Your task to perform on an android device: check data usage Image 0: 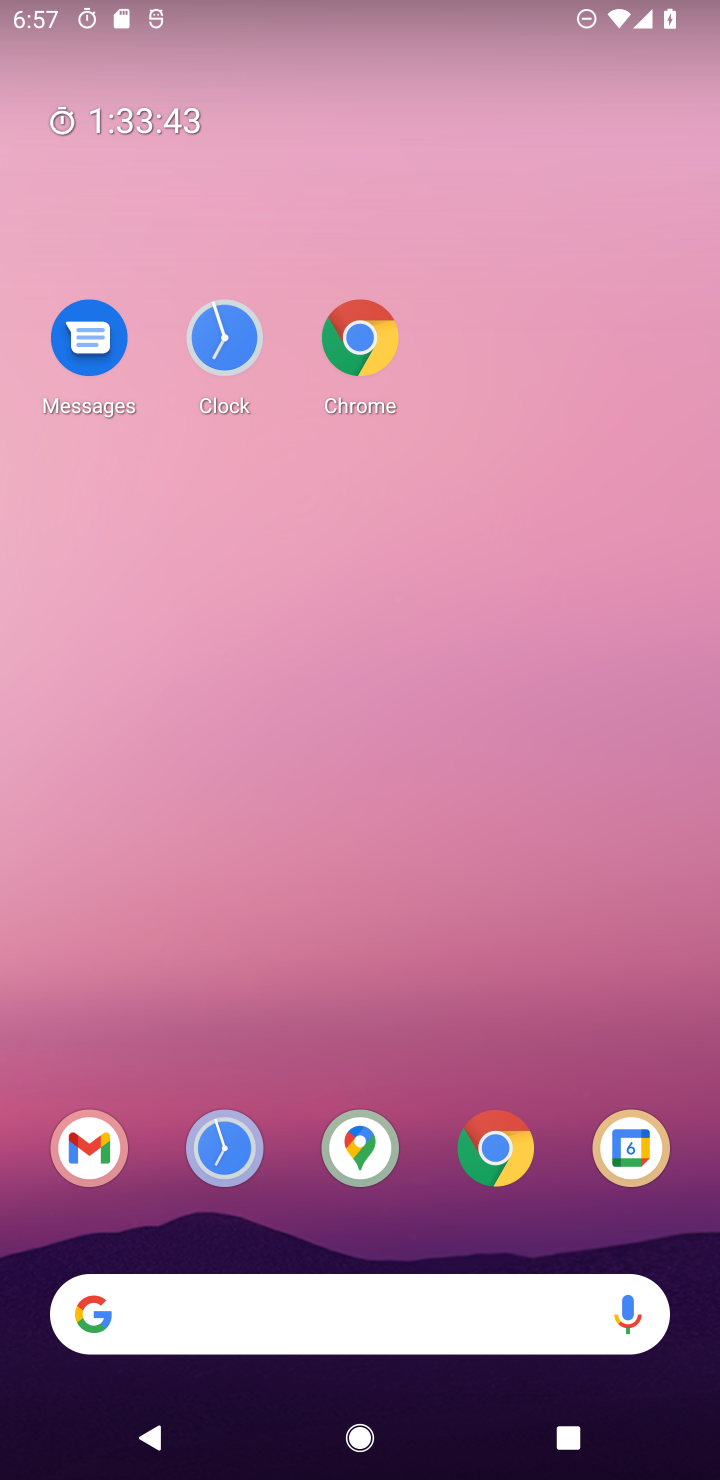
Step 0: drag from (407, 1111) to (497, 410)
Your task to perform on an android device: check data usage Image 1: 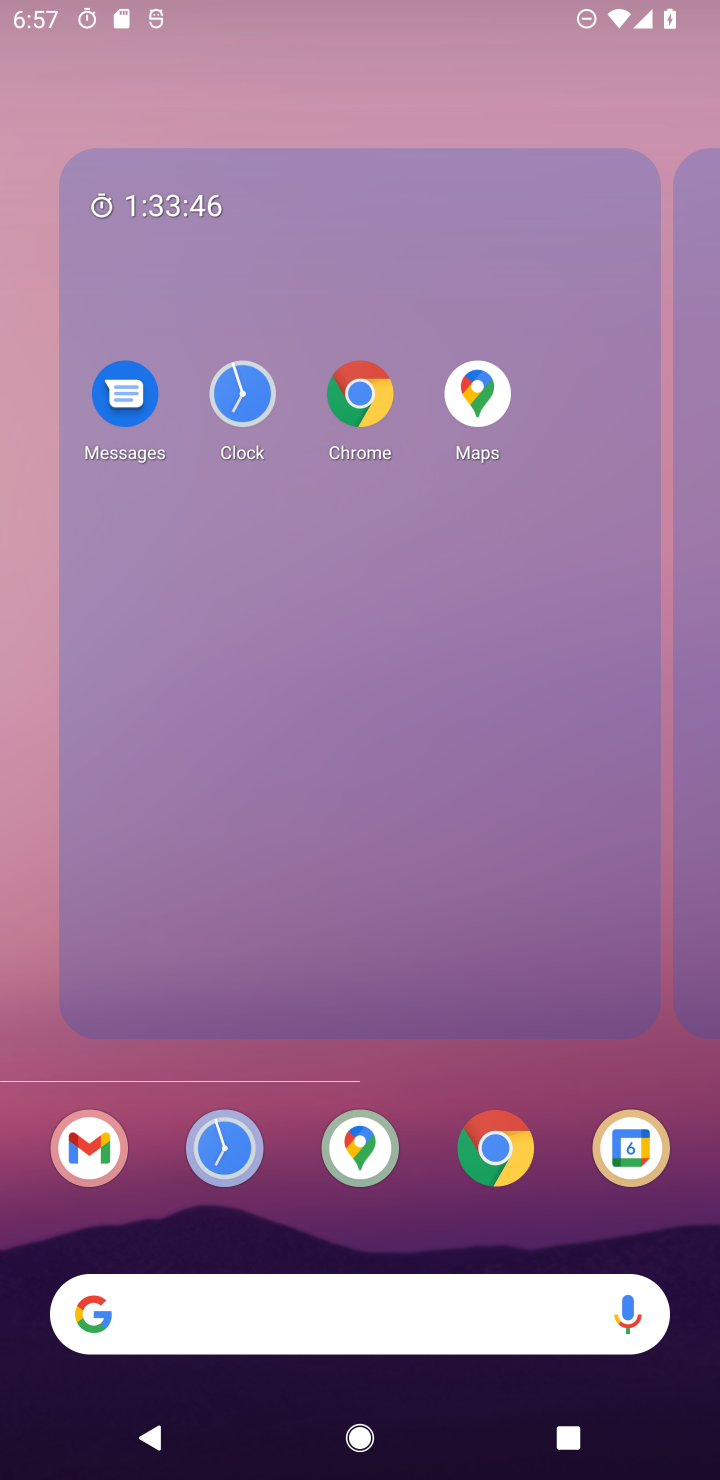
Step 1: drag from (385, 1137) to (429, 427)
Your task to perform on an android device: check data usage Image 2: 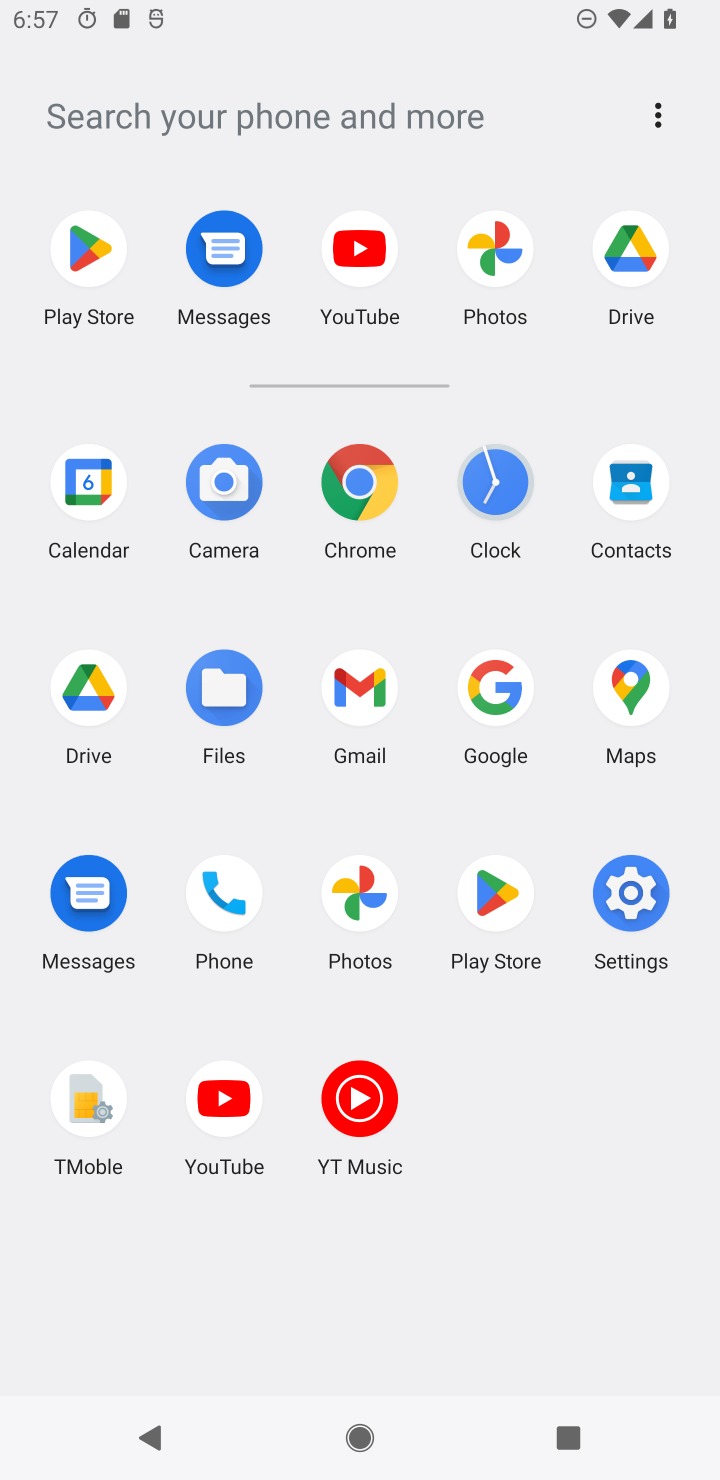
Step 2: click (615, 884)
Your task to perform on an android device: check data usage Image 3: 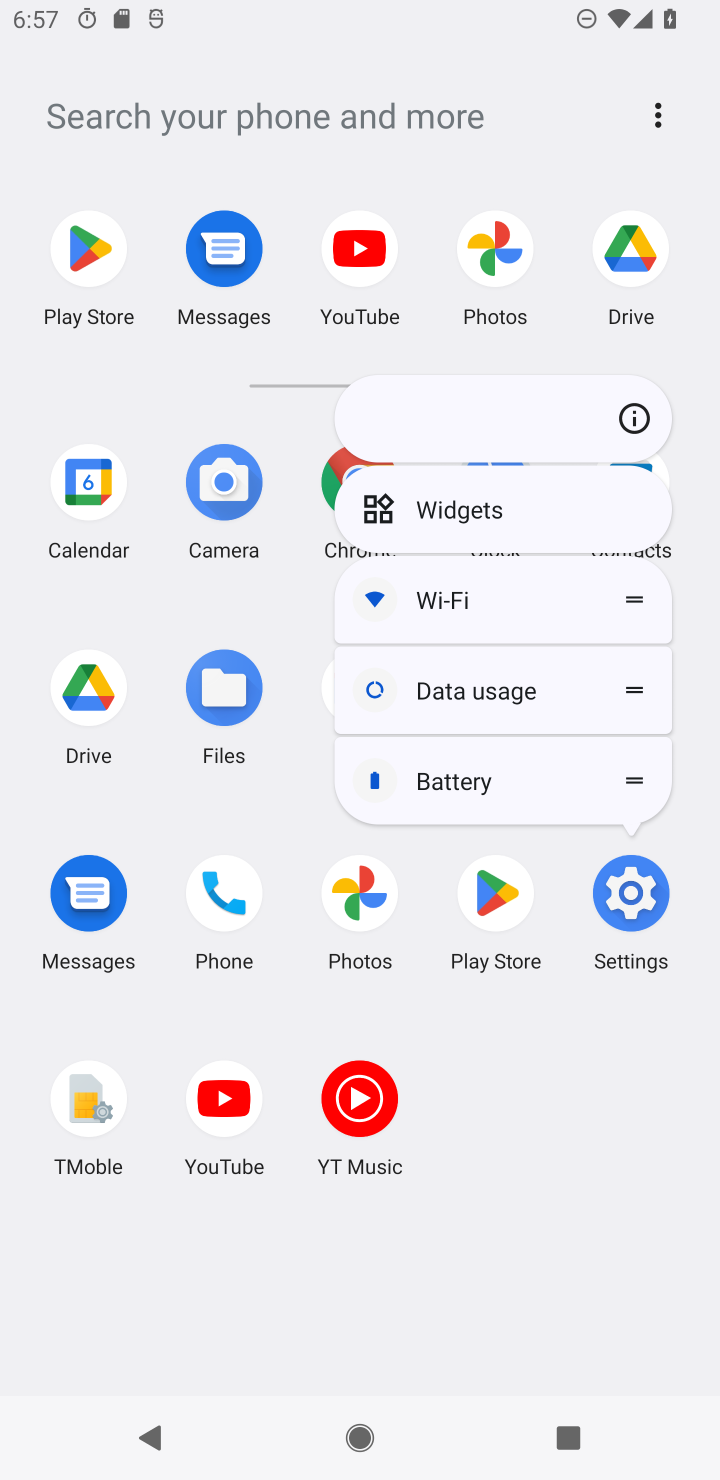
Step 3: click (633, 414)
Your task to perform on an android device: check data usage Image 4: 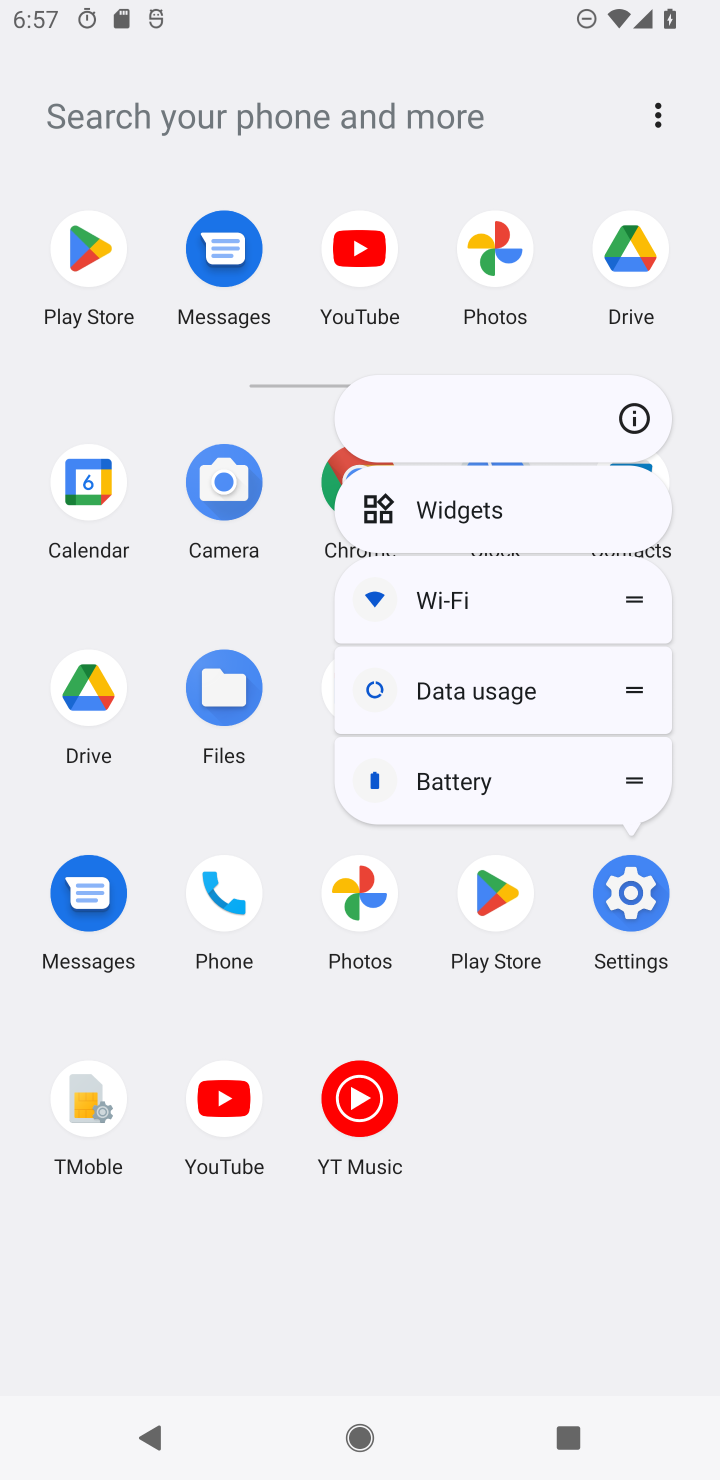
Step 4: click (619, 424)
Your task to perform on an android device: check data usage Image 5: 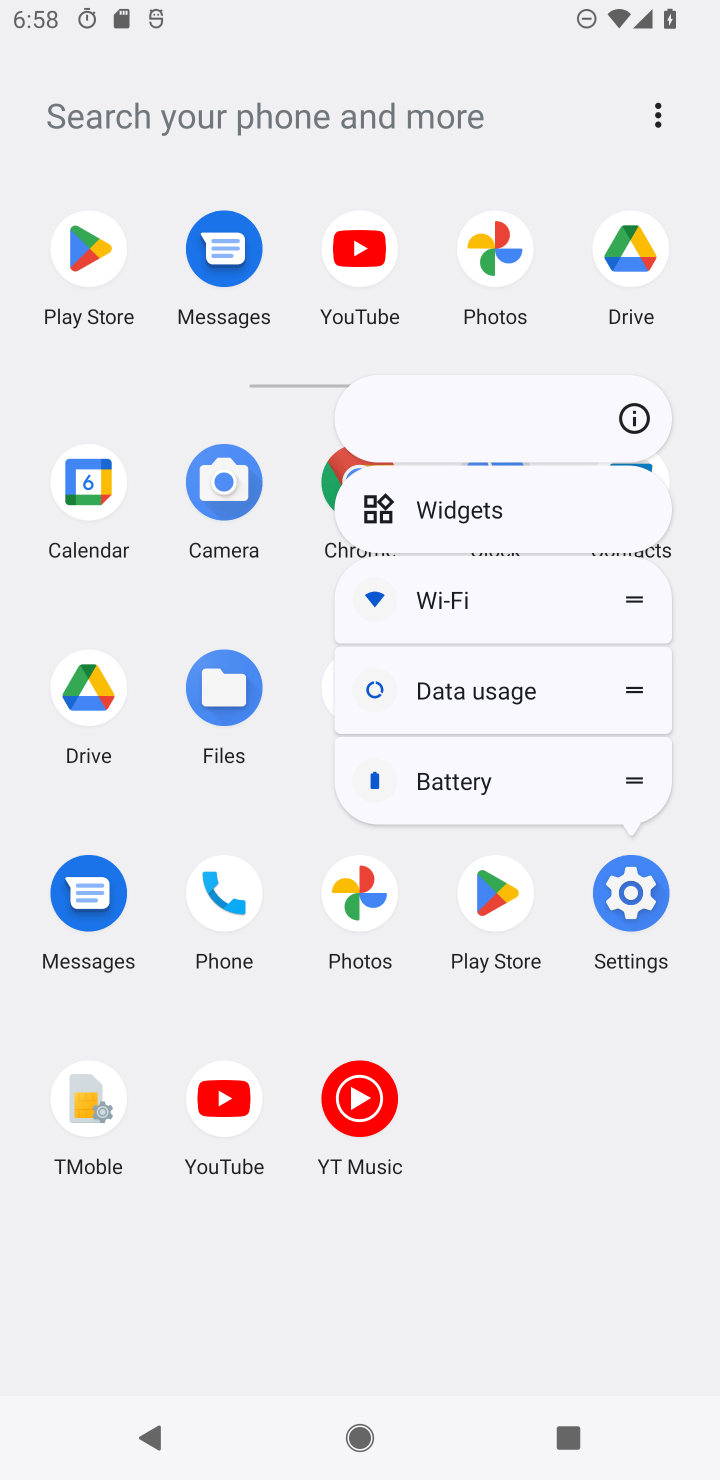
Step 5: click (634, 413)
Your task to perform on an android device: check data usage Image 6: 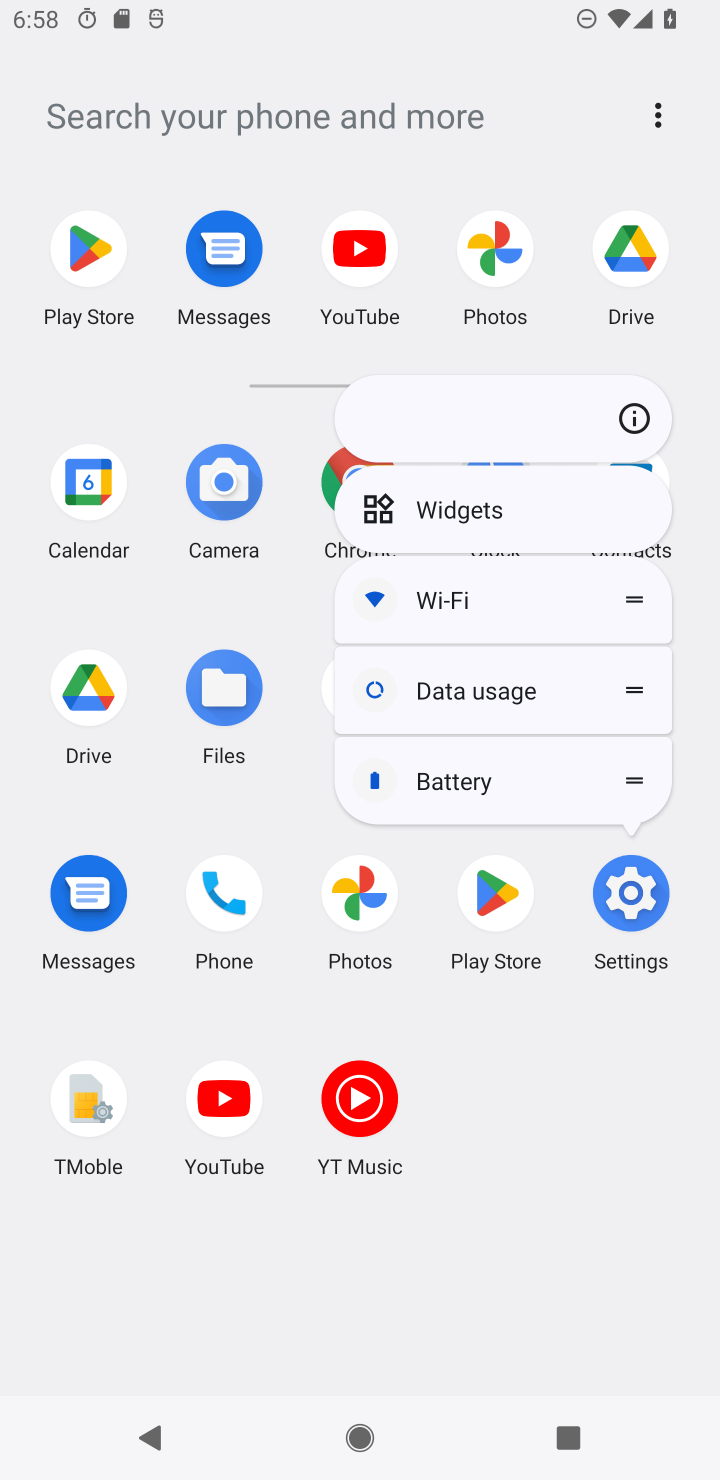
Step 6: click (635, 412)
Your task to perform on an android device: check data usage Image 7: 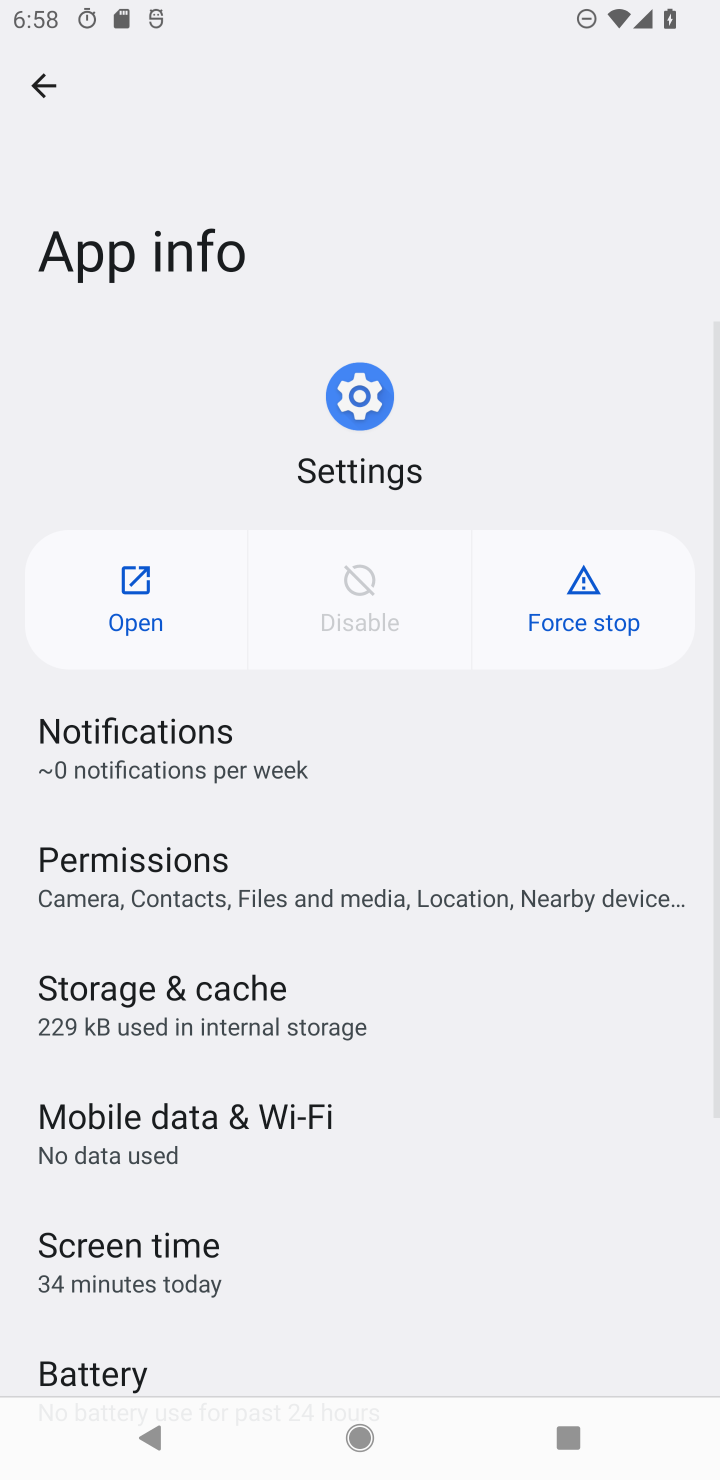
Step 7: click (170, 642)
Your task to perform on an android device: check data usage Image 8: 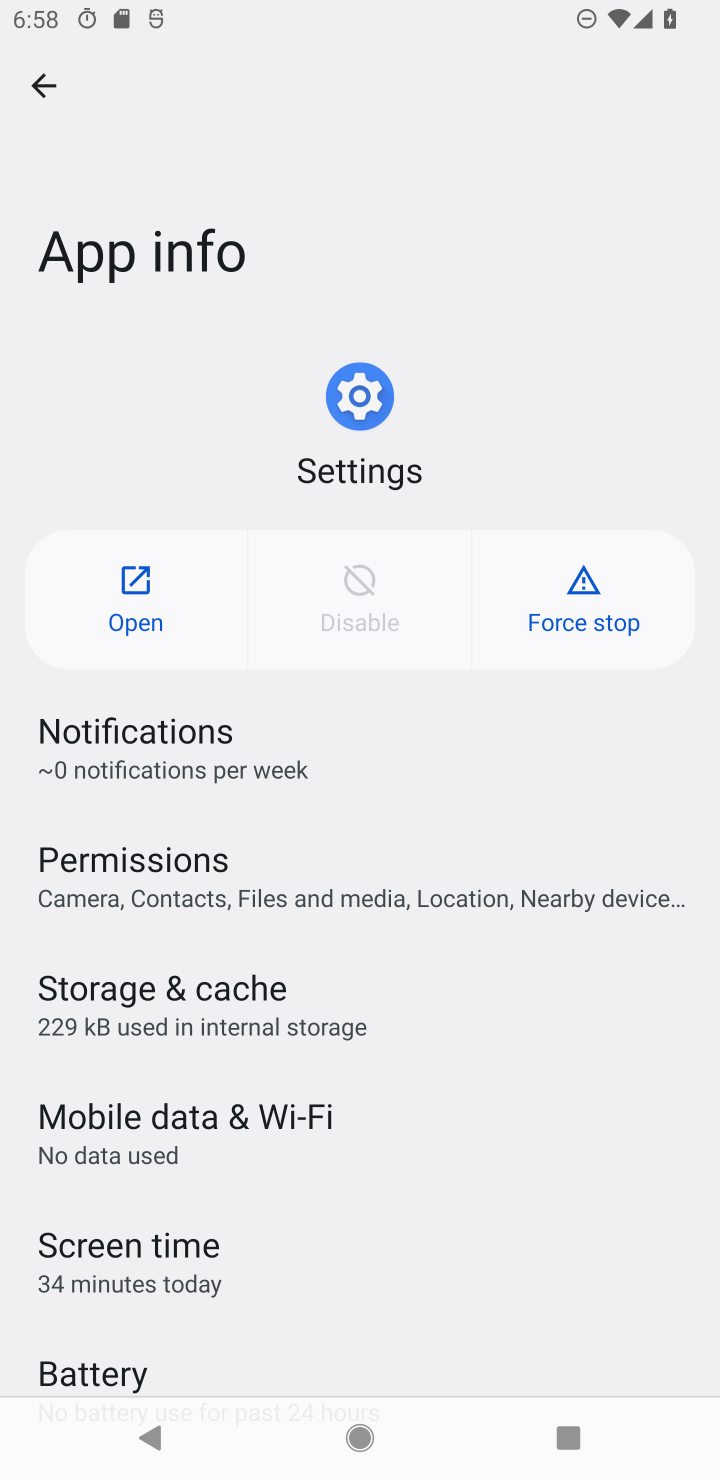
Step 8: click (148, 632)
Your task to perform on an android device: check data usage Image 9: 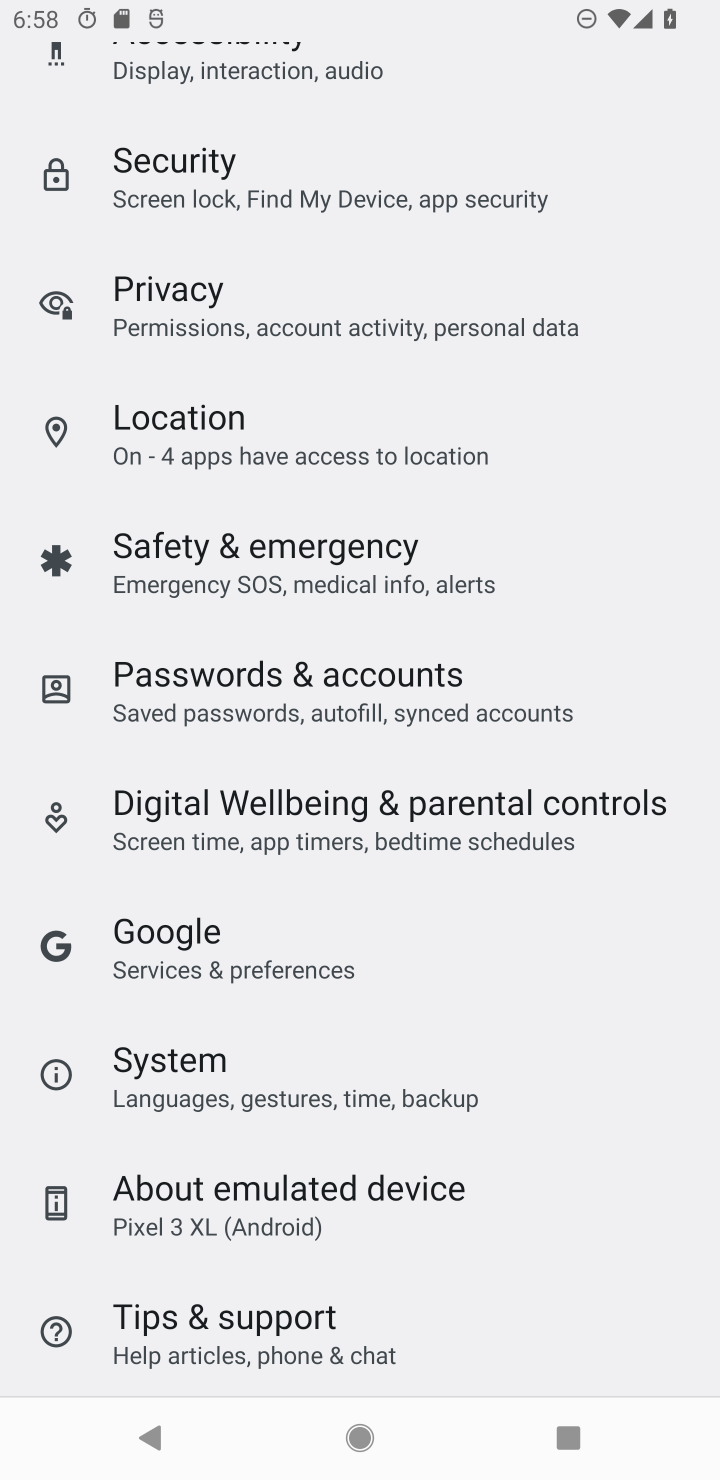
Step 9: drag from (399, 1227) to (434, 539)
Your task to perform on an android device: check data usage Image 10: 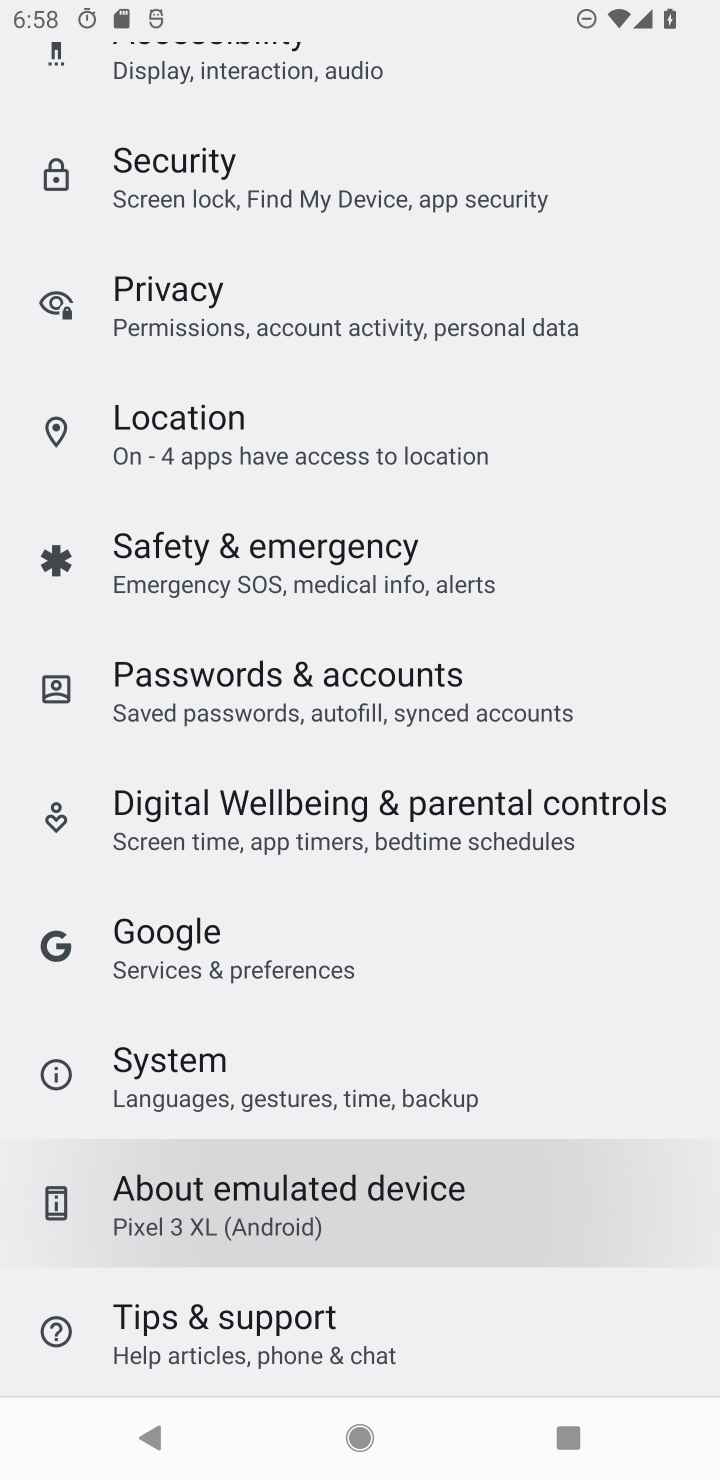
Step 10: drag from (470, 1392) to (485, 1478)
Your task to perform on an android device: check data usage Image 11: 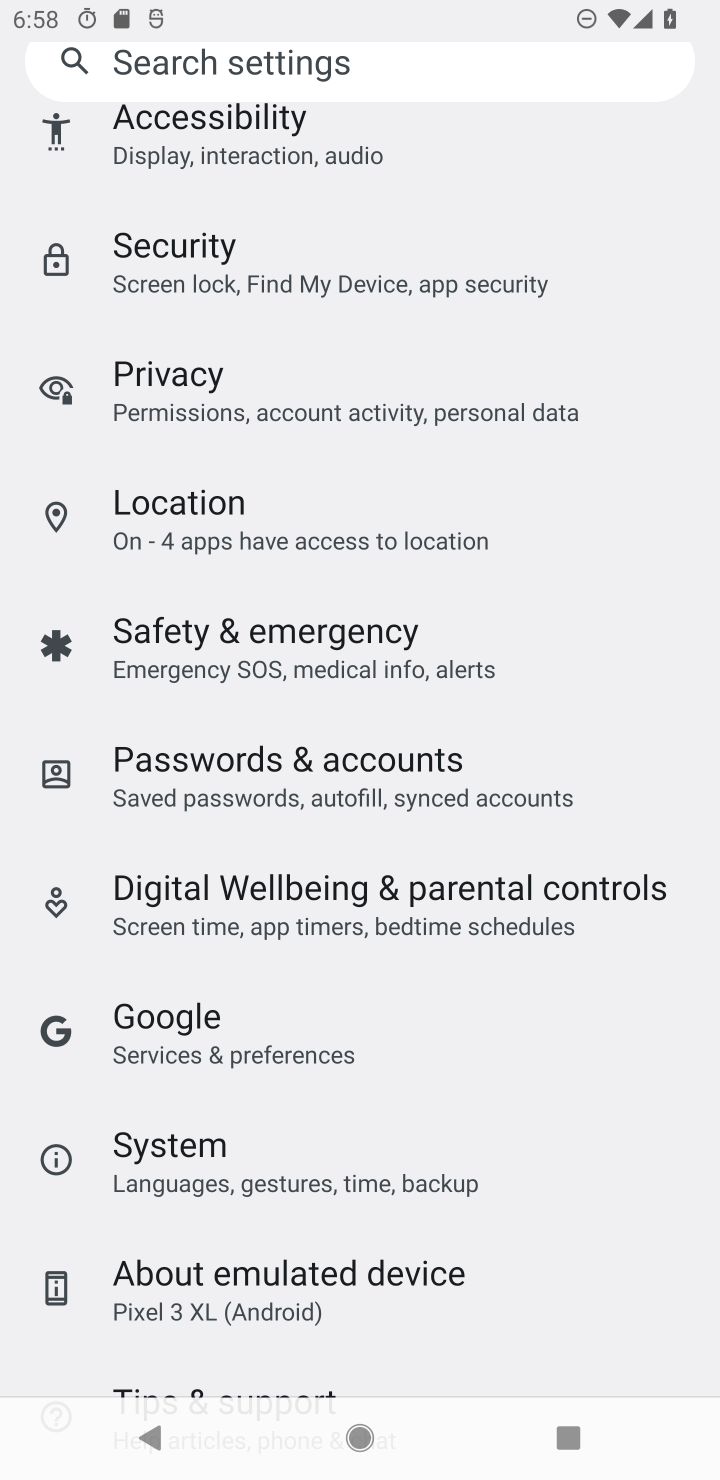
Step 11: click (459, 1323)
Your task to perform on an android device: check data usage Image 12: 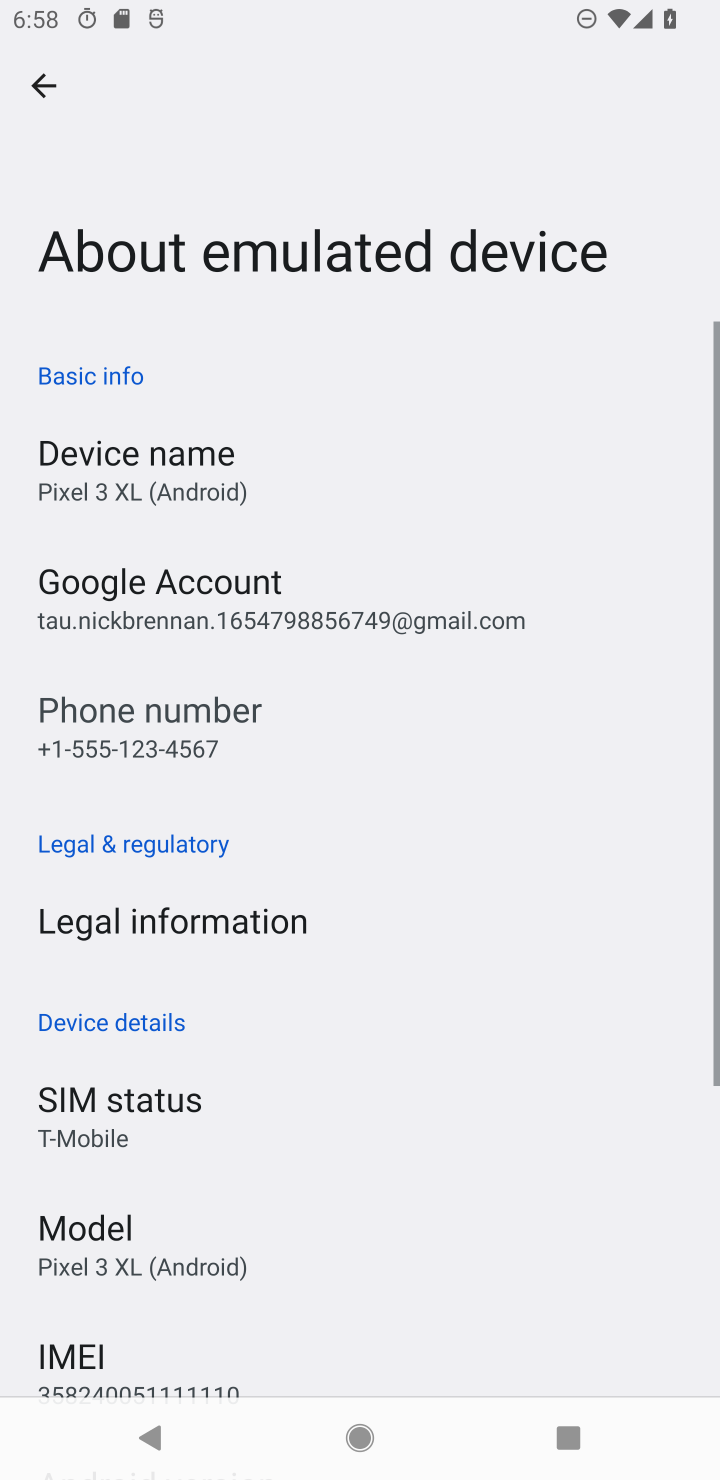
Step 12: drag from (342, 606) to (502, 1435)
Your task to perform on an android device: check data usage Image 13: 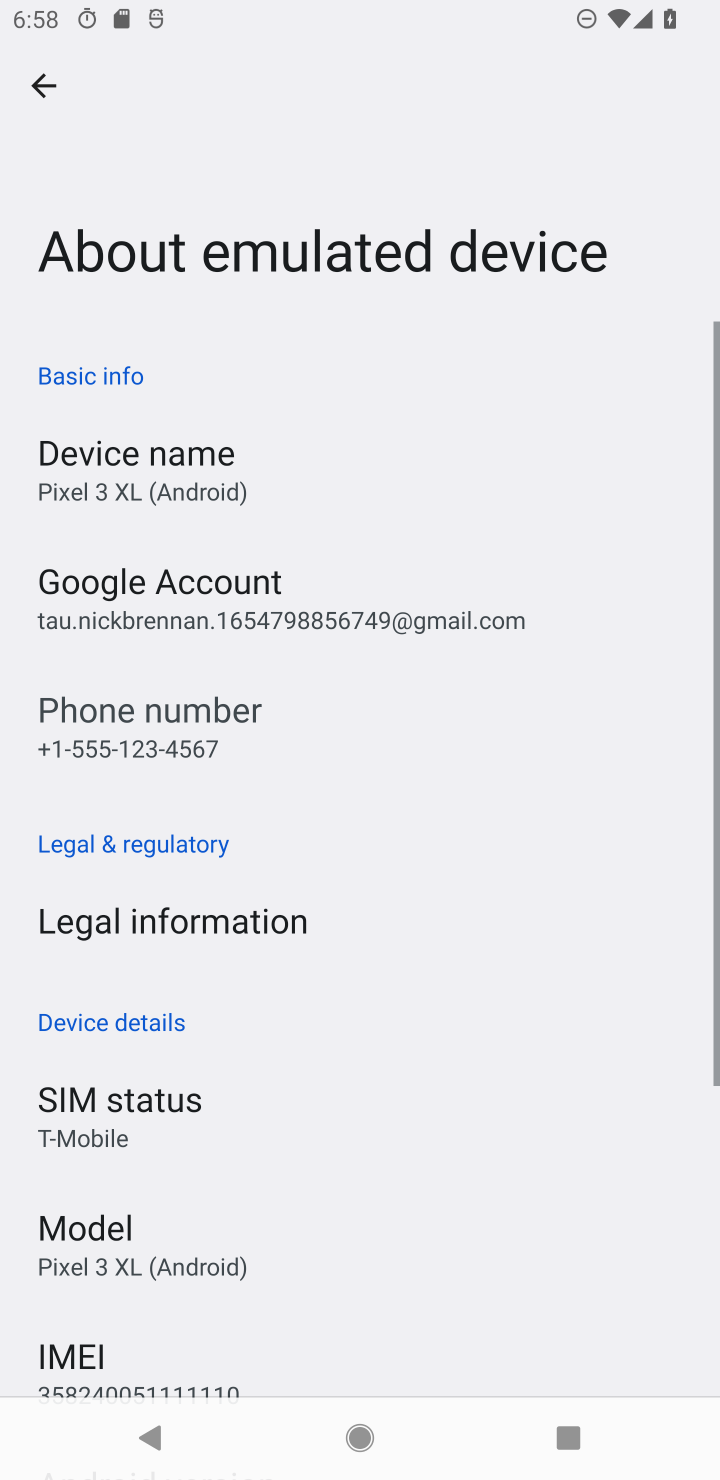
Step 13: drag from (355, 1044) to (484, 168)
Your task to perform on an android device: check data usage Image 14: 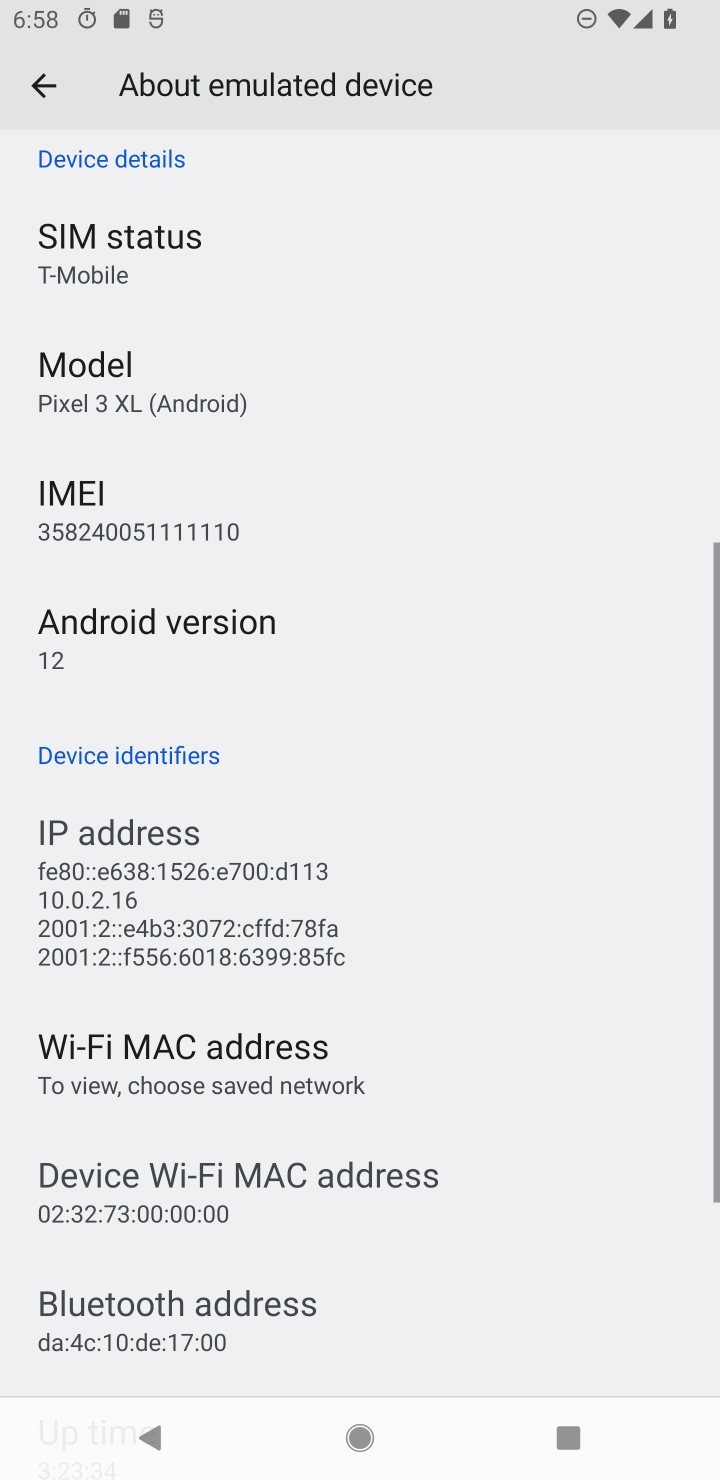
Step 14: drag from (340, 773) to (383, 413)
Your task to perform on an android device: check data usage Image 15: 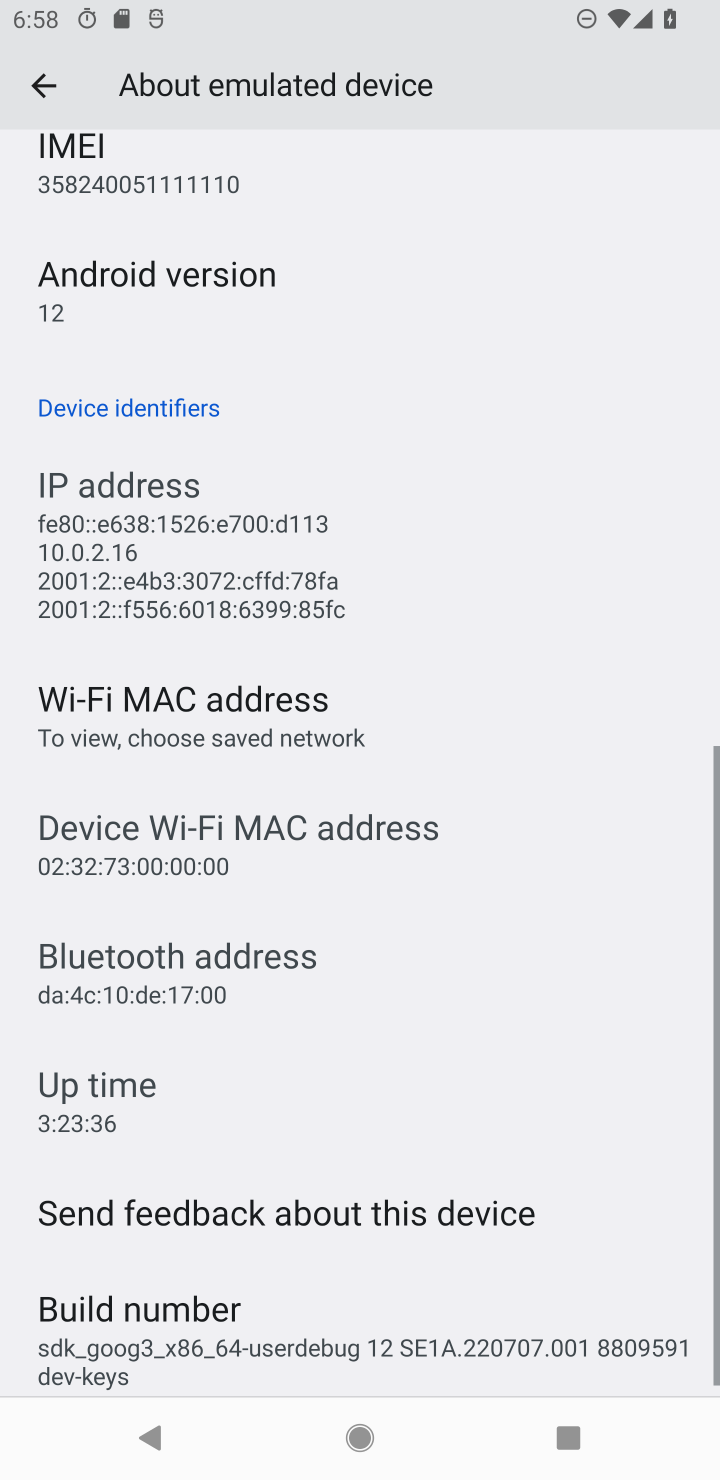
Step 15: click (432, 424)
Your task to perform on an android device: check data usage Image 16: 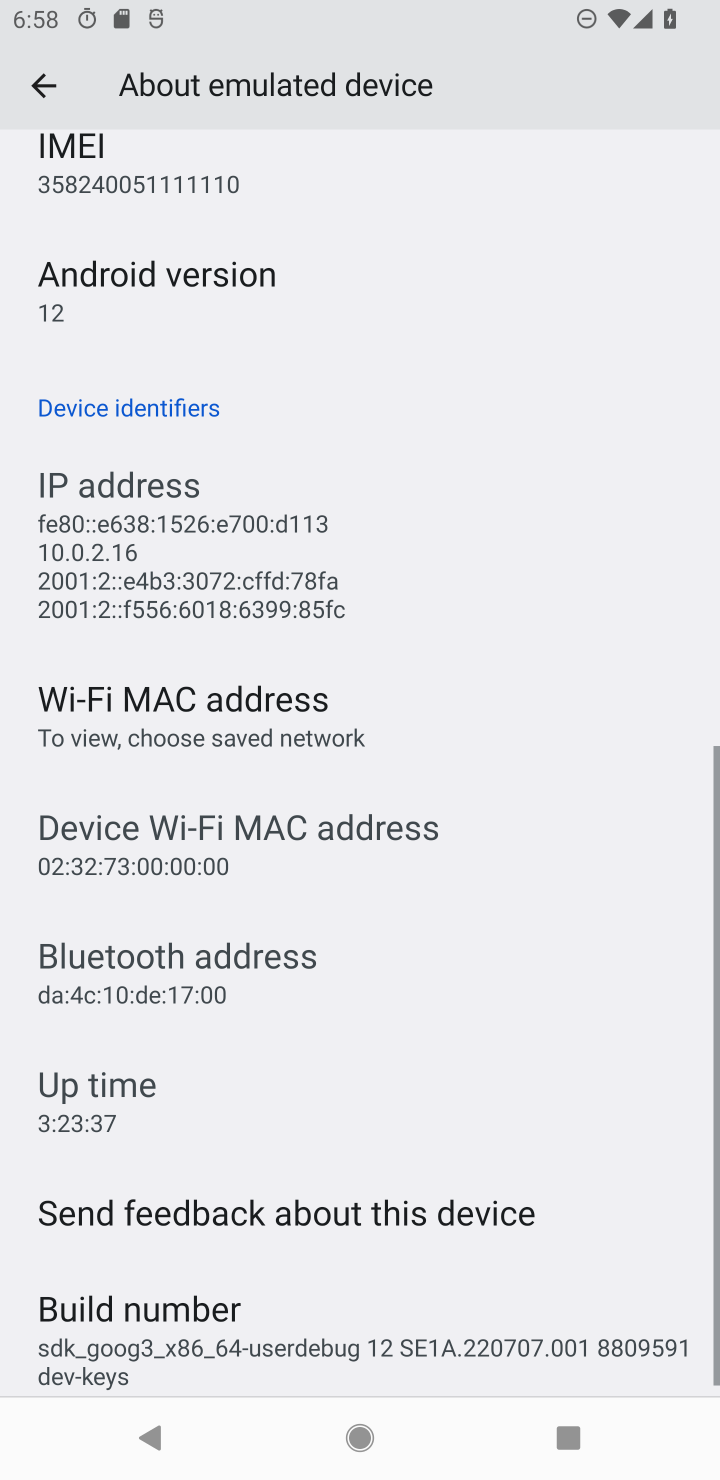
Step 16: drag from (361, 389) to (532, 1336)
Your task to perform on an android device: check data usage Image 17: 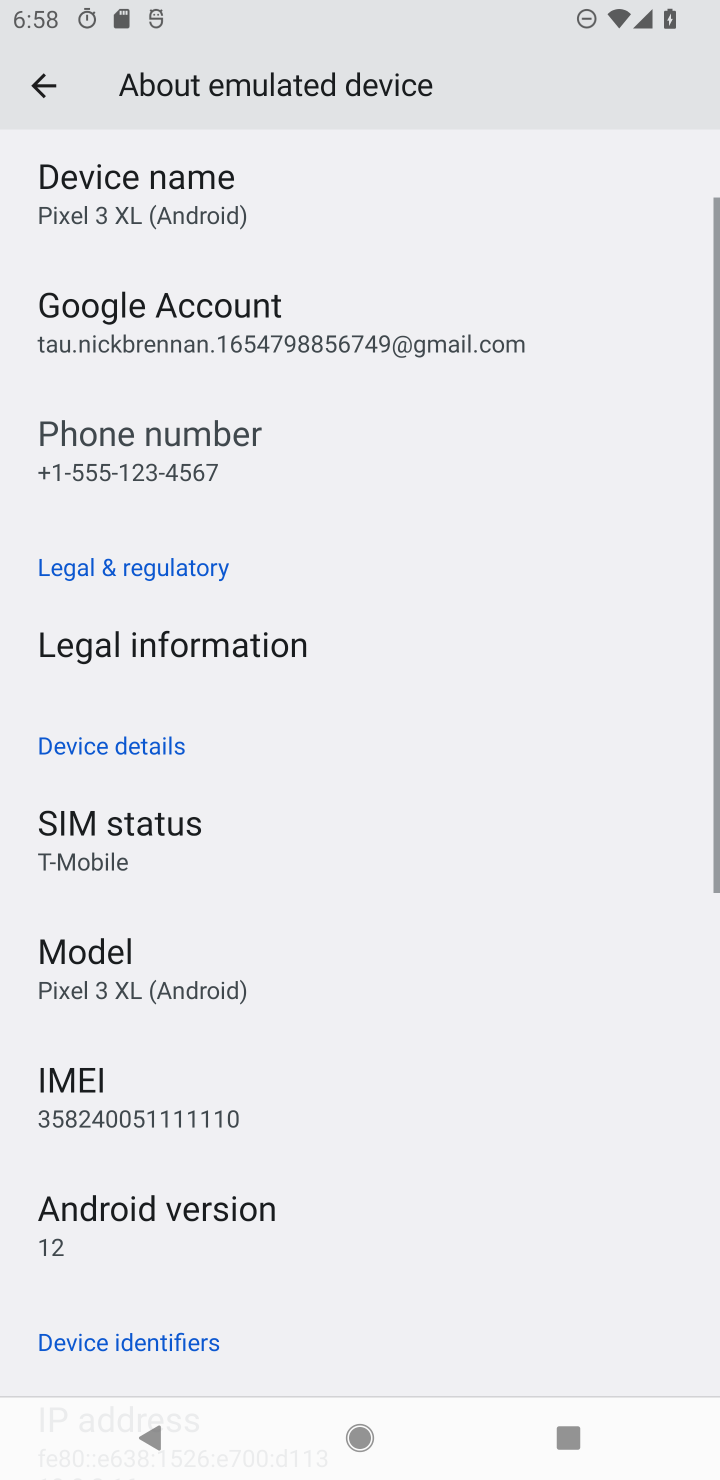
Step 17: press back button
Your task to perform on an android device: check data usage Image 18: 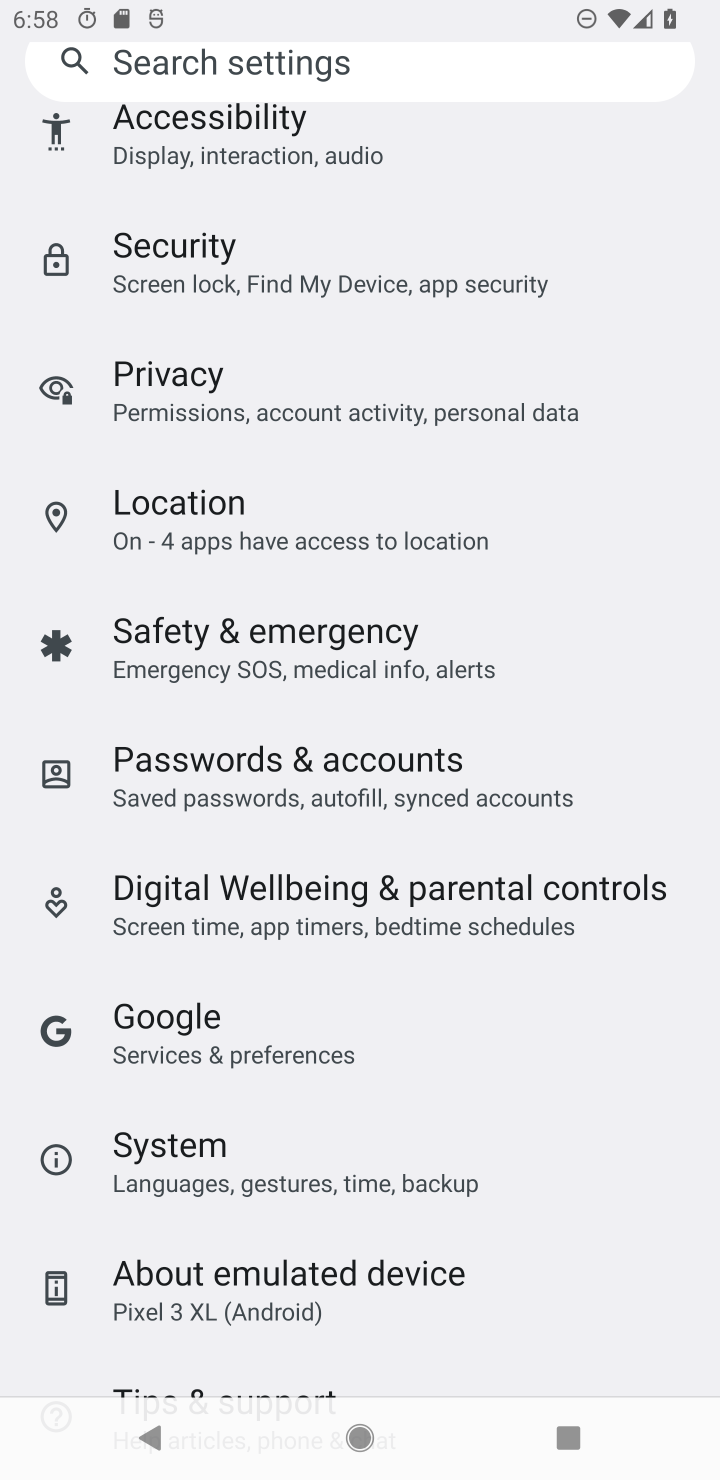
Step 18: drag from (400, 920) to (385, 1470)
Your task to perform on an android device: check data usage Image 19: 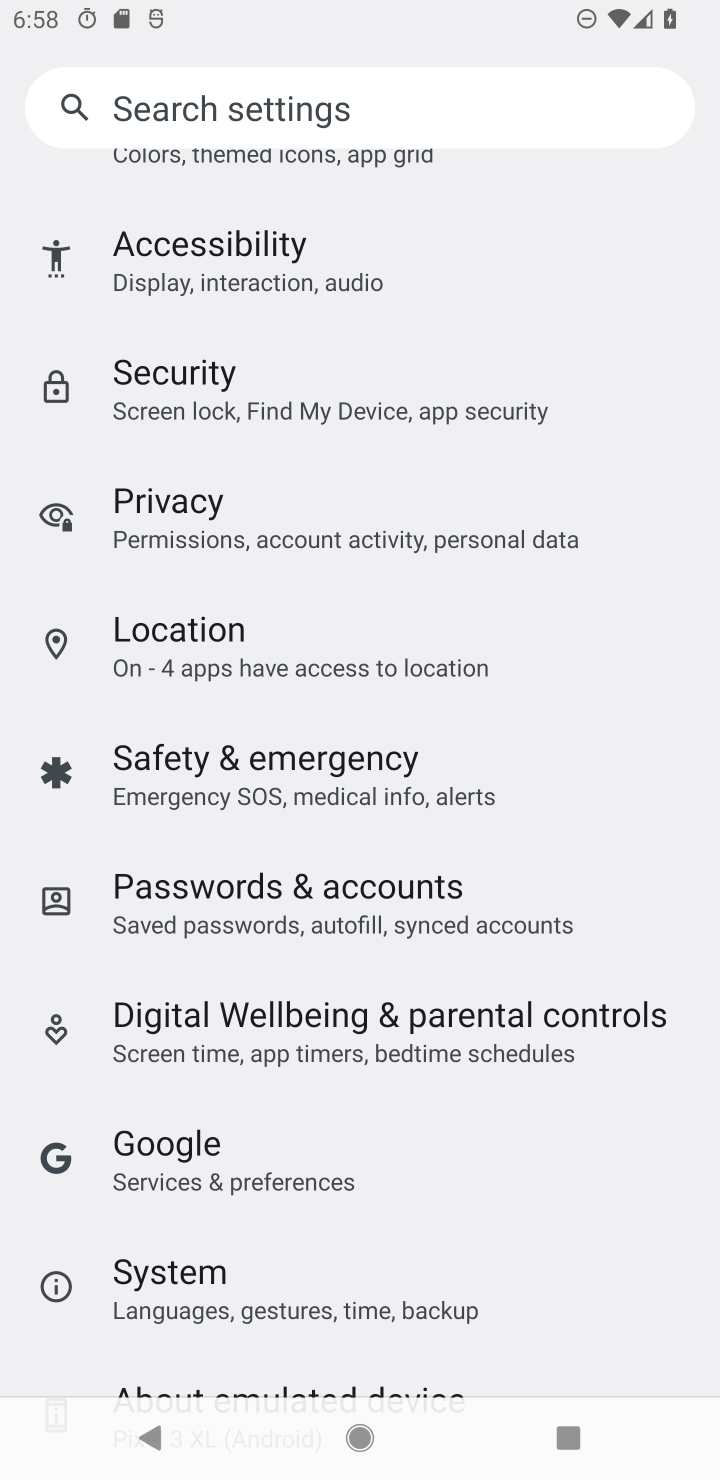
Step 19: drag from (335, 412) to (626, 1463)
Your task to perform on an android device: check data usage Image 20: 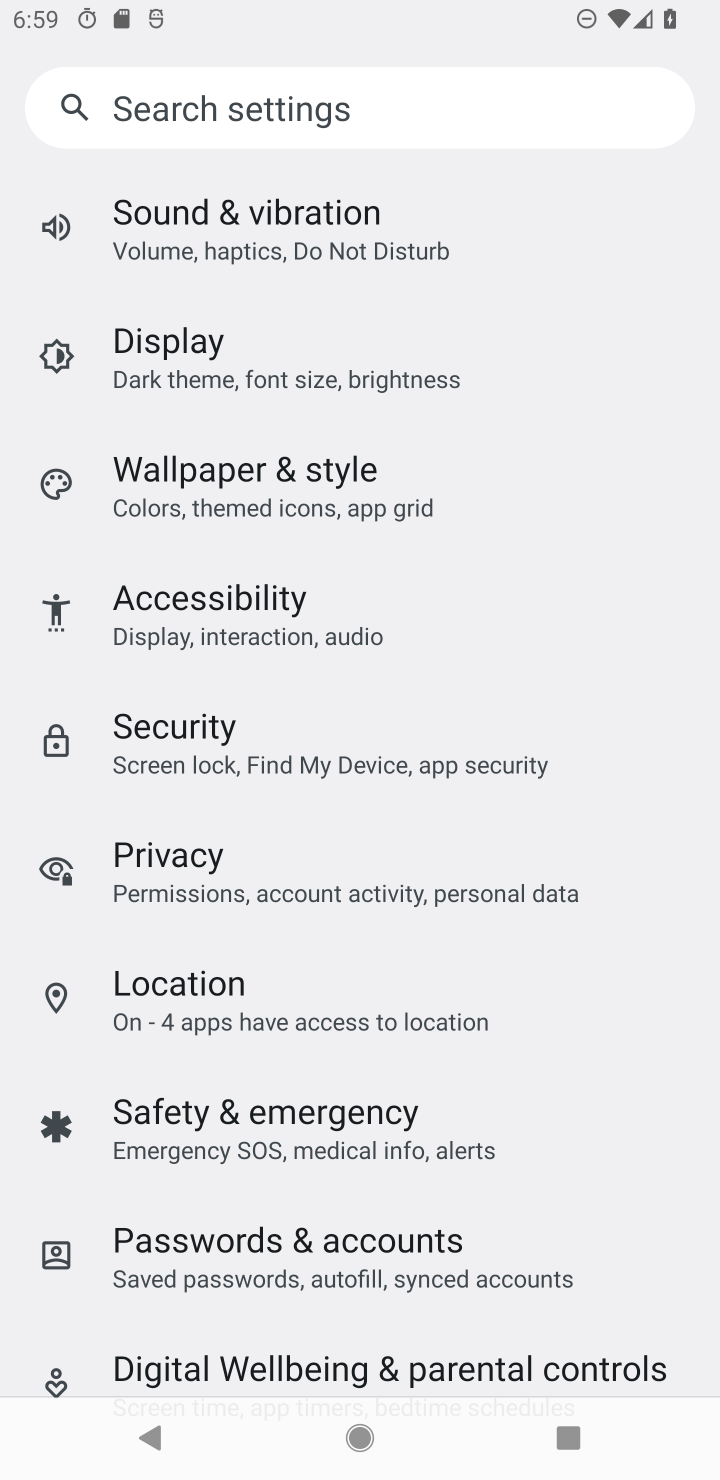
Step 20: drag from (312, 663) to (636, 1412)
Your task to perform on an android device: check data usage Image 21: 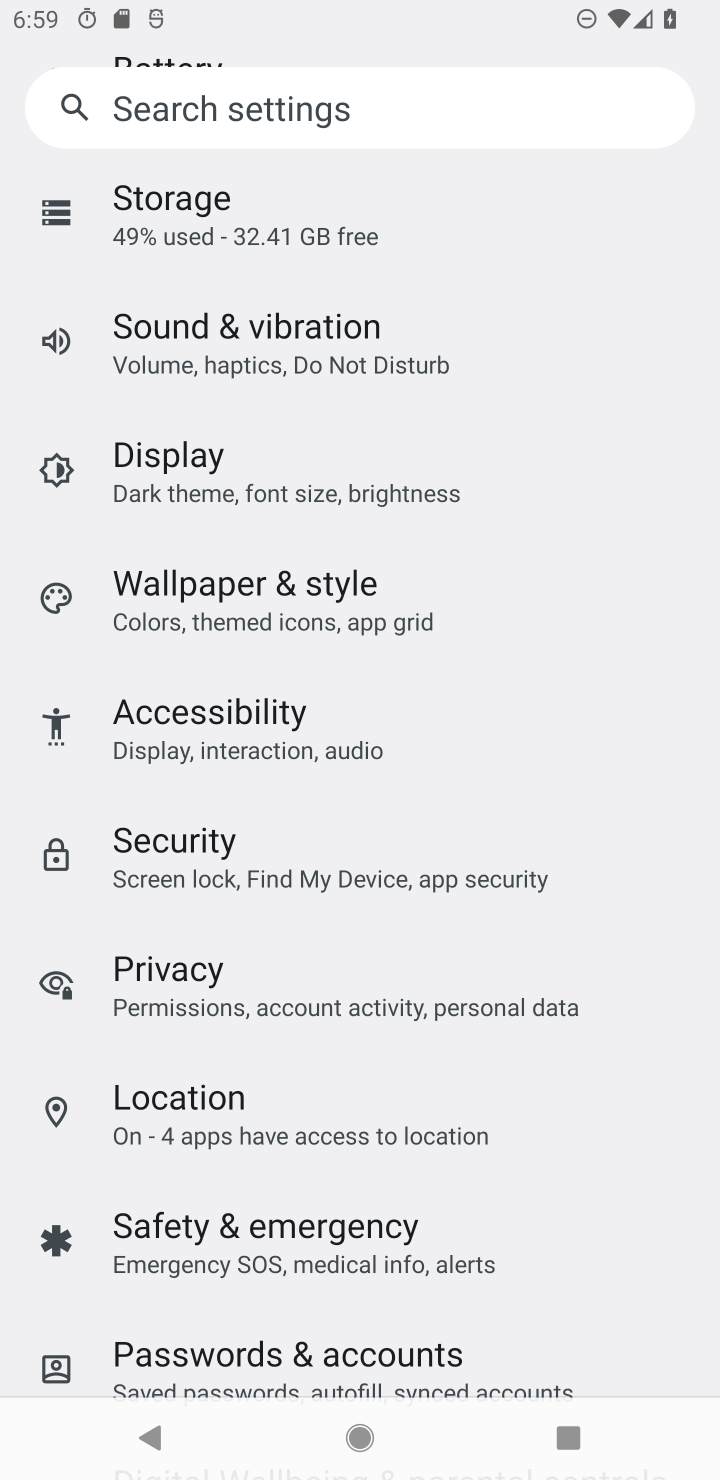
Step 21: drag from (262, 418) to (507, 1239)
Your task to perform on an android device: check data usage Image 22: 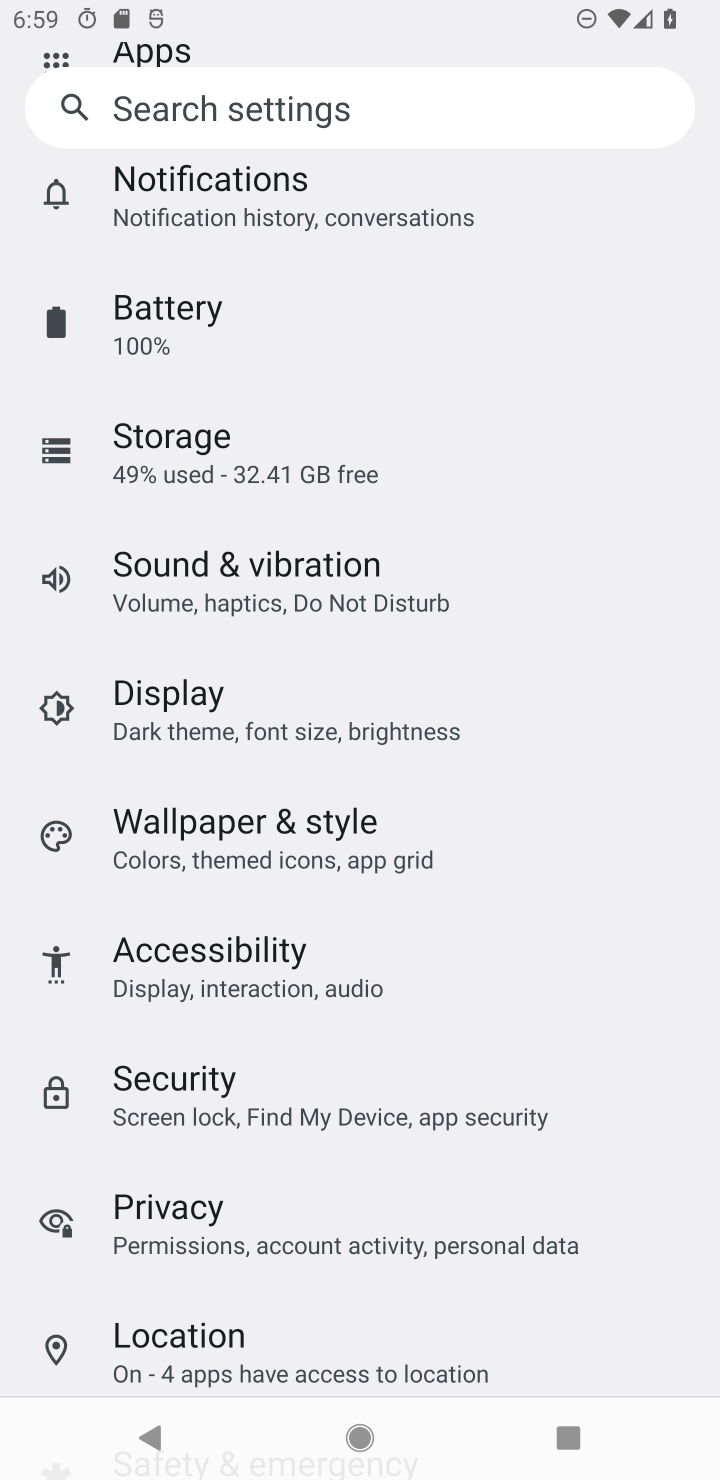
Step 22: drag from (364, 790) to (586, 1424)
Your task to perform on an android device: check data usage Image 23: 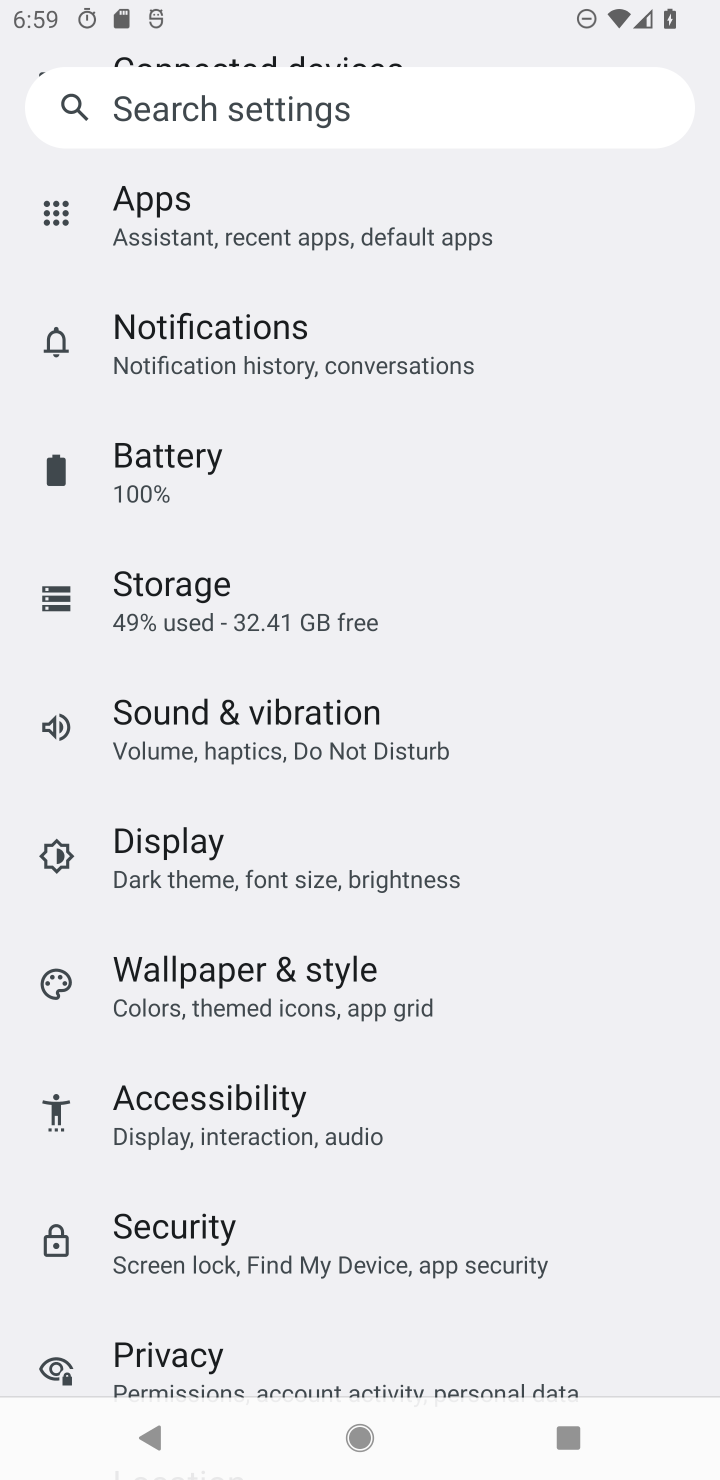
Step 23: drag from (259, 398) to (524, 1176)
Your task to perform on an android device: check data usage Image 24: 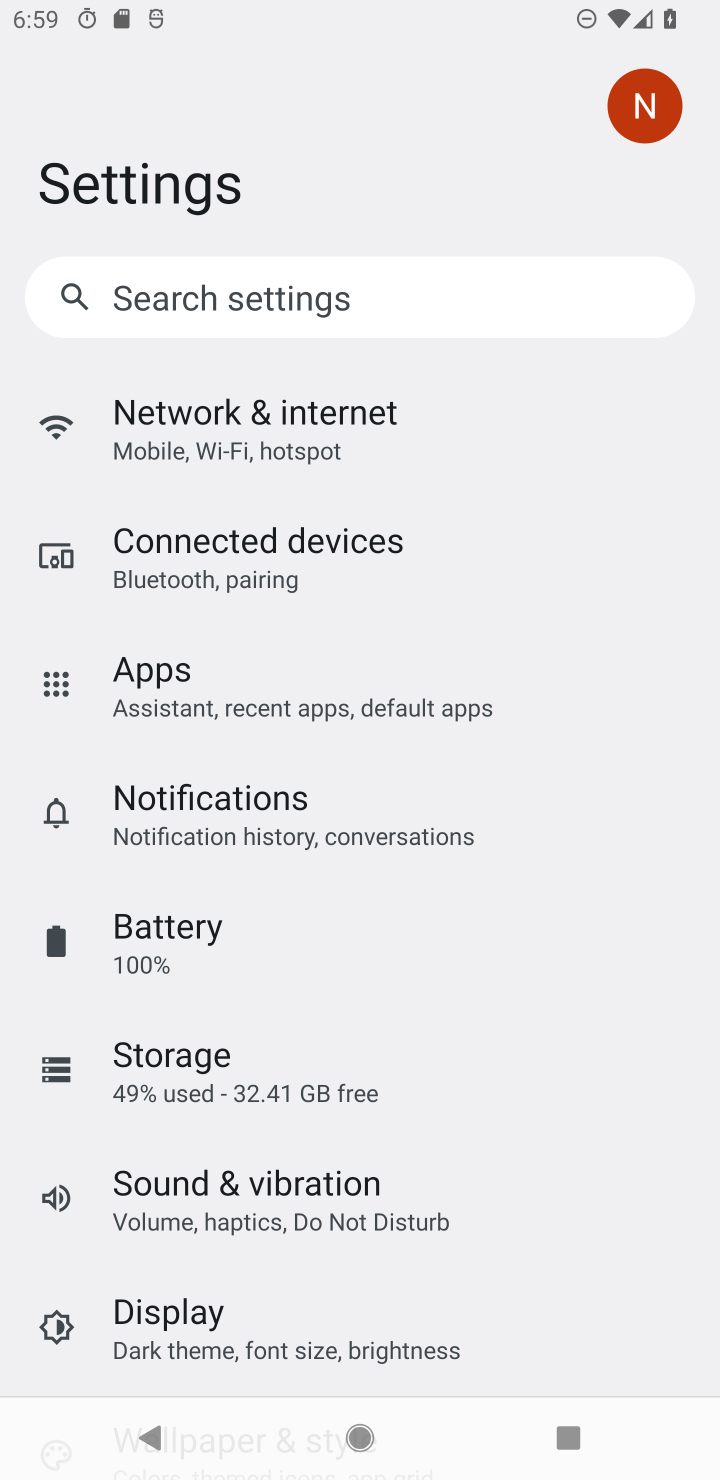
Step 24: click (262, 417)
Your task to perform on an android device: check data usage Image 25: 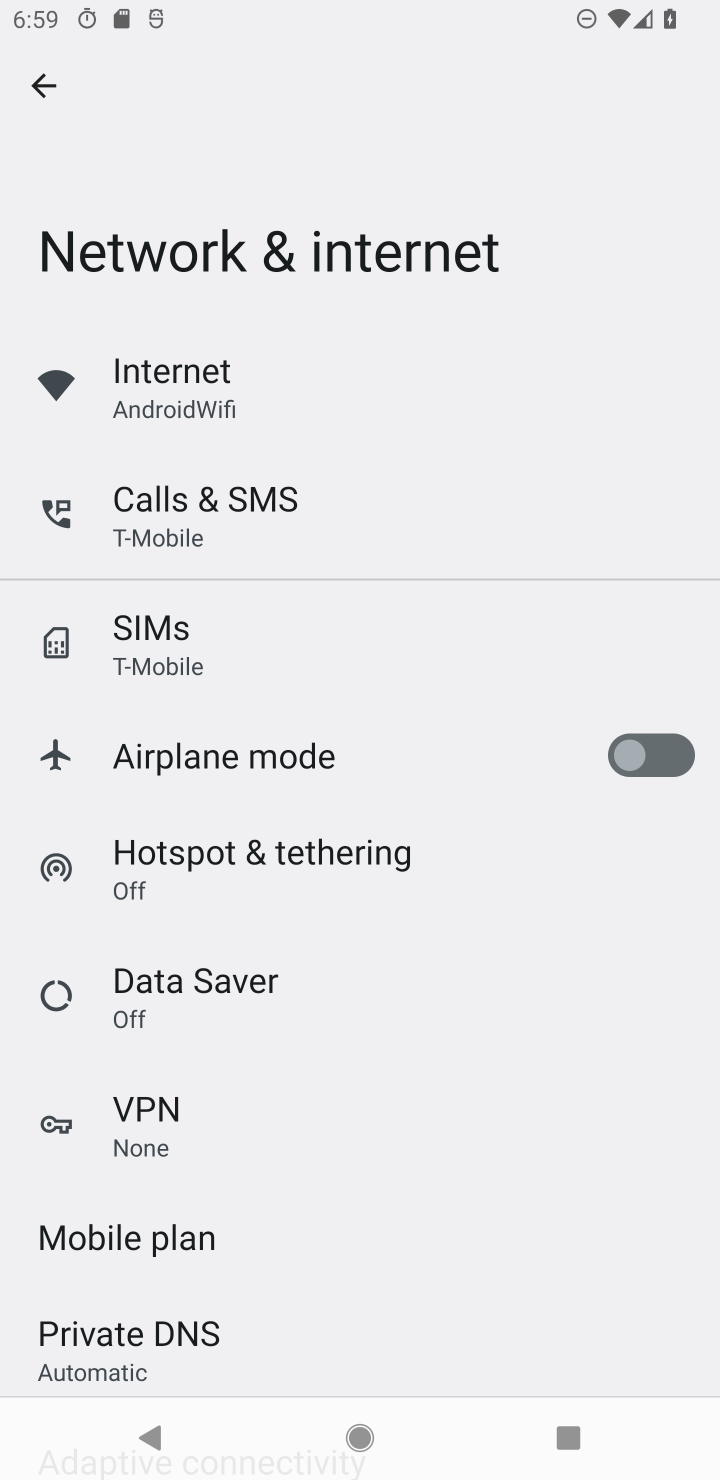
Step 25: drag from (451, 911) to (526, 43)
Your task to perform on an android device: check data usage Image 26: 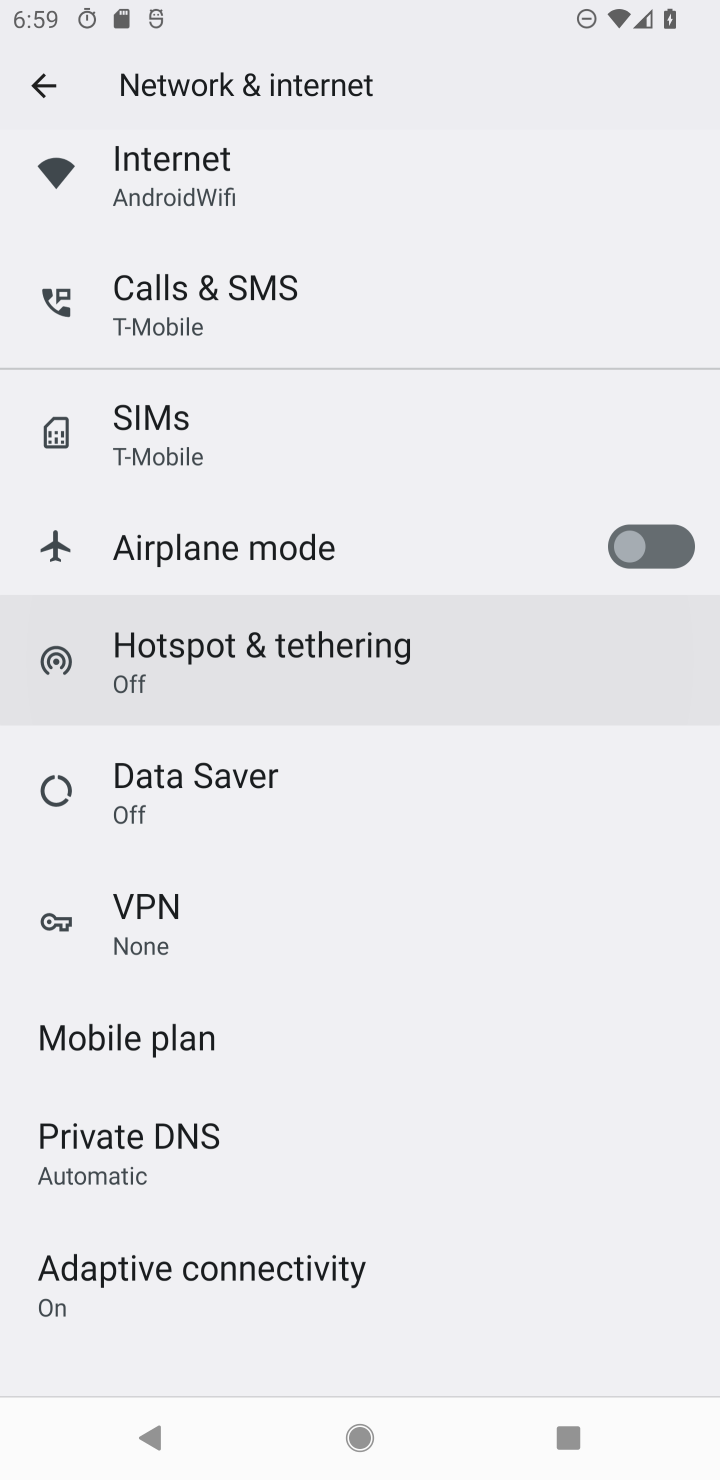
Step 26: drag from (430, 1145) to (509, 7)
Your task to perform on an android device: check data usage Image 27: 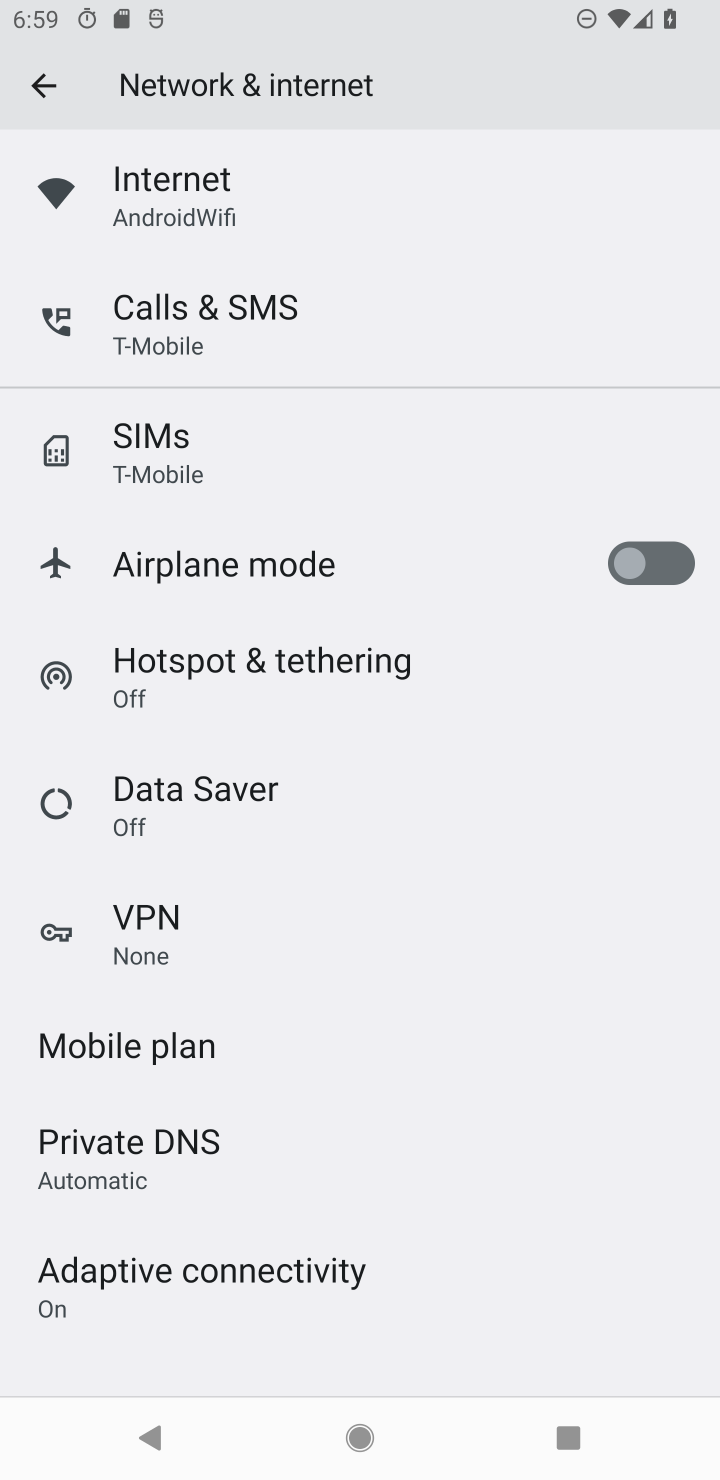
Step 27: drag from (278, 1223) to (385, 607)
Your task to perform on an android device: check data usage Image 28: 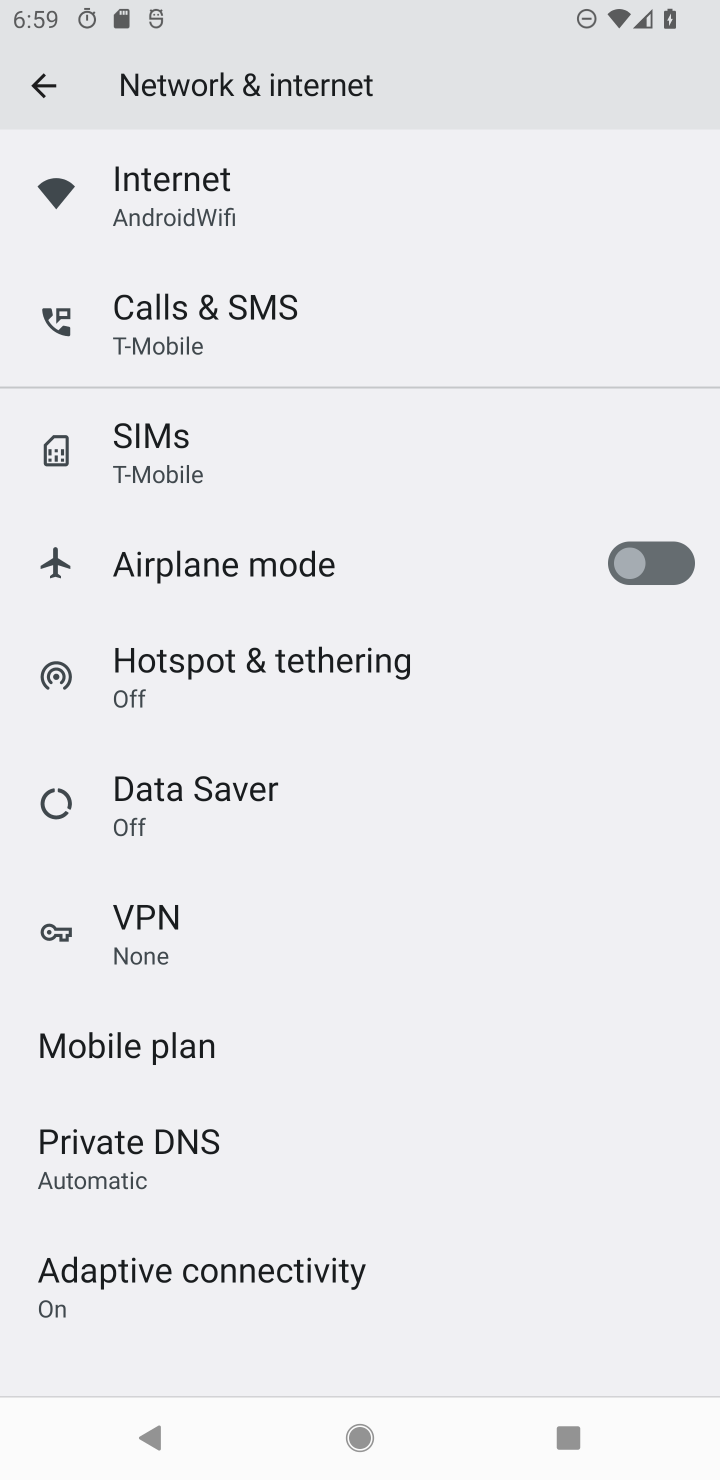
Step 28: drag from (384, 897) to (459, 399)
Your task to perform on an android device: check data usage Image 29: 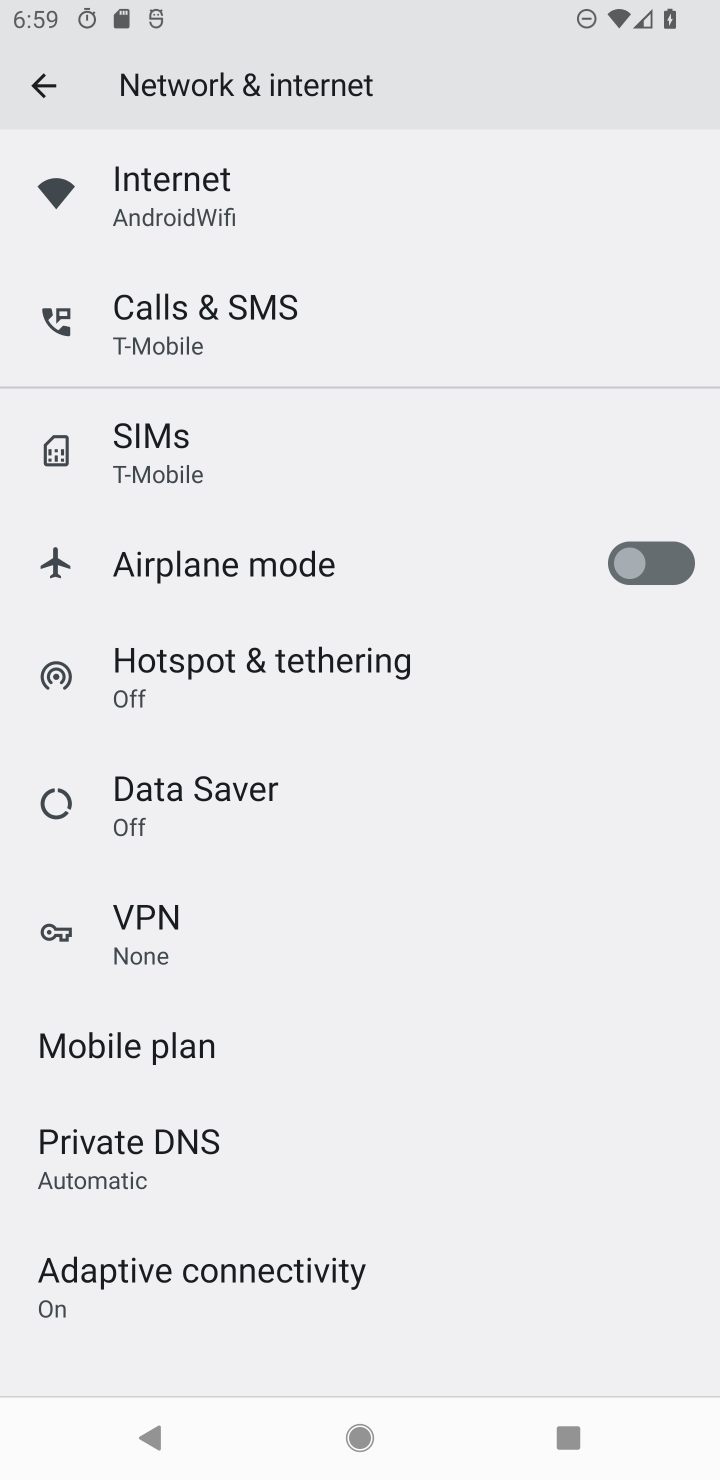
Step 29: click (178, 444)
Your task to perform on an android device: check data usage Image 30: 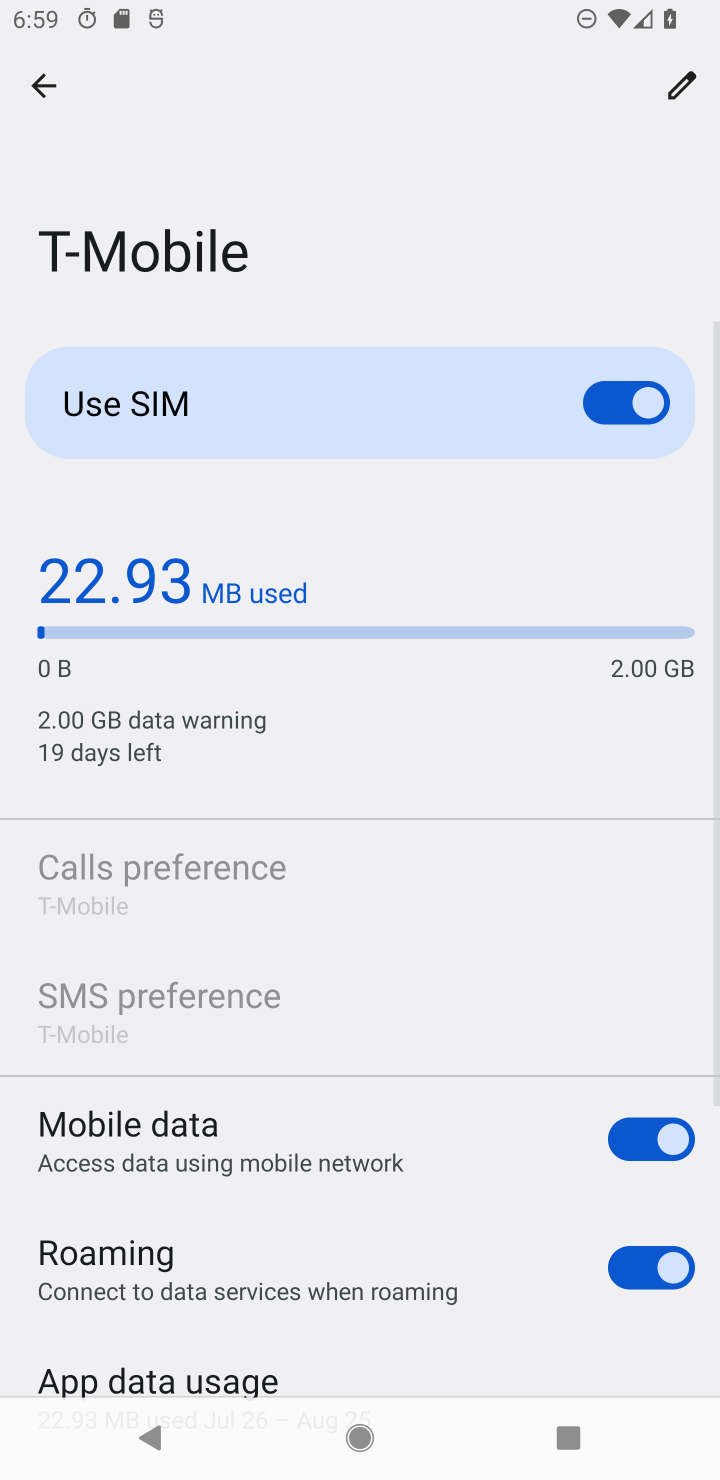
Step 30: task complete